Your task to perform on an android device: turn off location history Image 0: 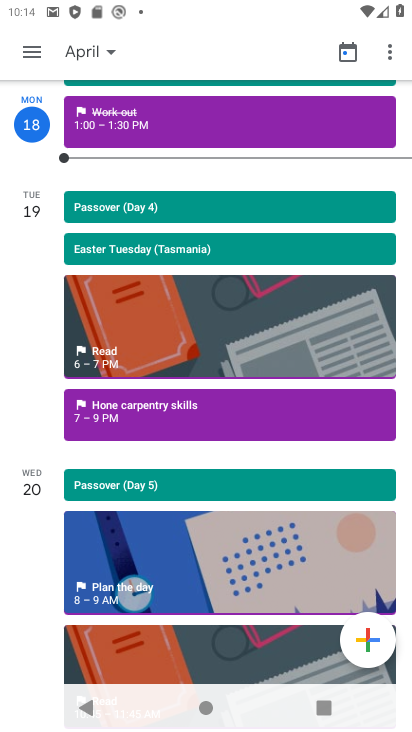
Step 0: press back button
Your task to perform on an android device: turn off location history Image 1: 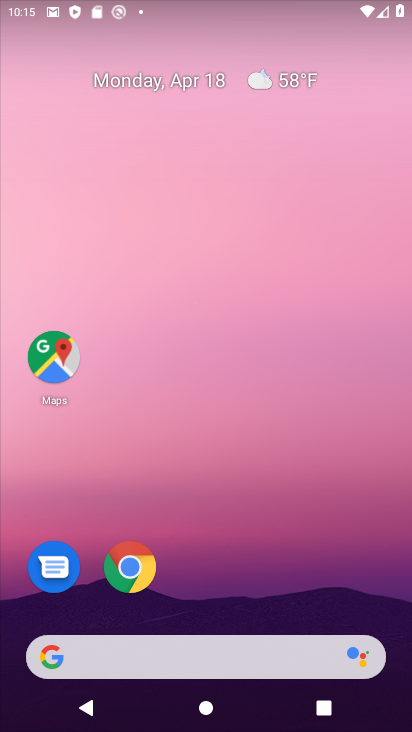
Step 1: drag from (205, 723) to (206, 144)
Your task to perform on an android device: turn off location history Image 2: 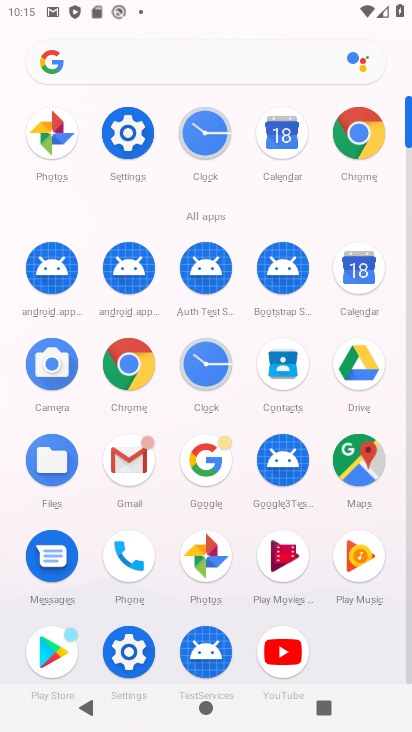
Step 2: click (123, 129)
Your task to perform on an android device: turn off location history Image 3: 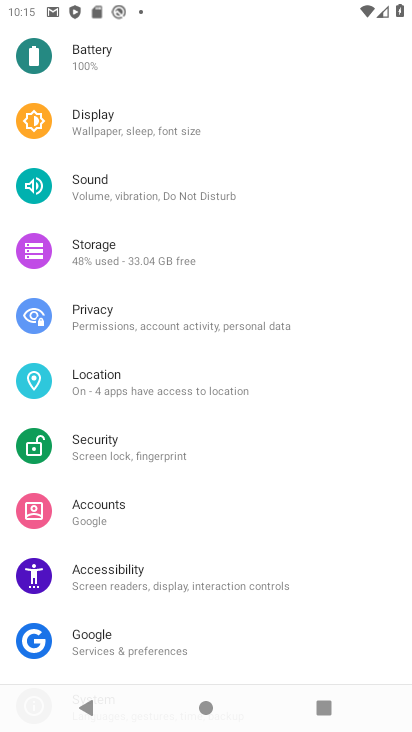
Step 3: click (105, 381)
Your task to perform on an android device: turn off location history Image 4: 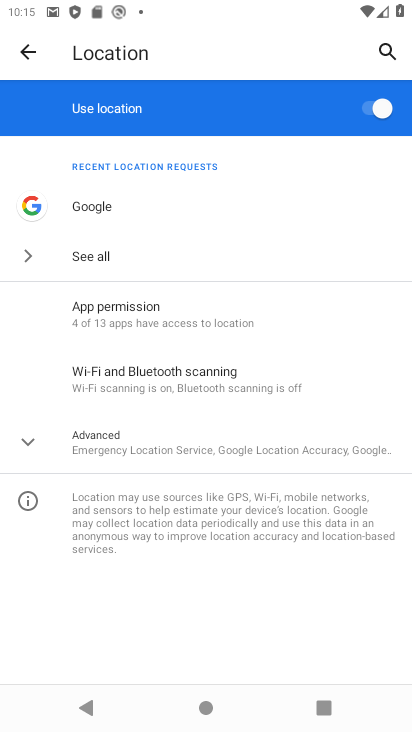
Step 4: click (130, 439)
Your task to perform on an android device: turn off location history Image 5: 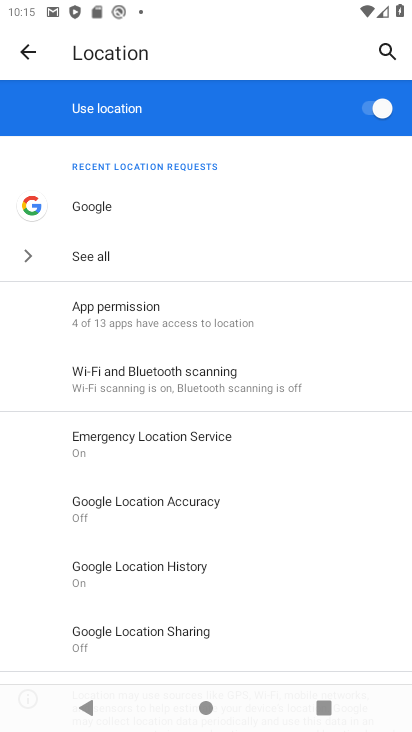
Step 5: drag from (237, 614) to (223, 376)
Your task to perform on an android device: turn off location history Image 6: 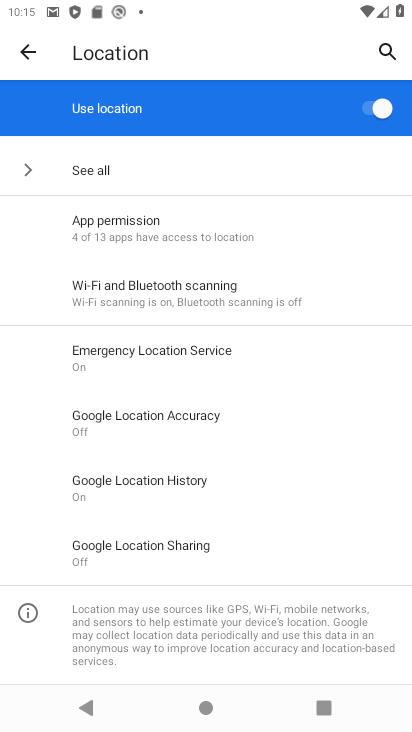
Step 6: click (135, 478)
Your task to perform on an android device: turn off location history Image 7: 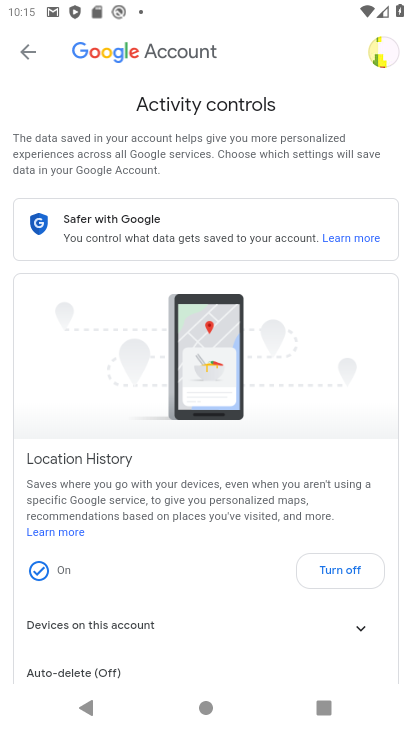
Step 7: click (355, 568)
Your task to perform on an android device: turn off location history Image 8: 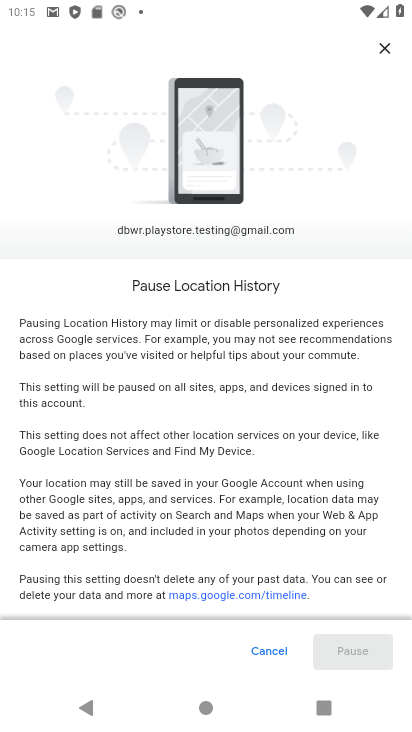
Step 8: drag from (238, 553) to (249, 129)
Your task to perform on an android device: turn off location history Image 9: 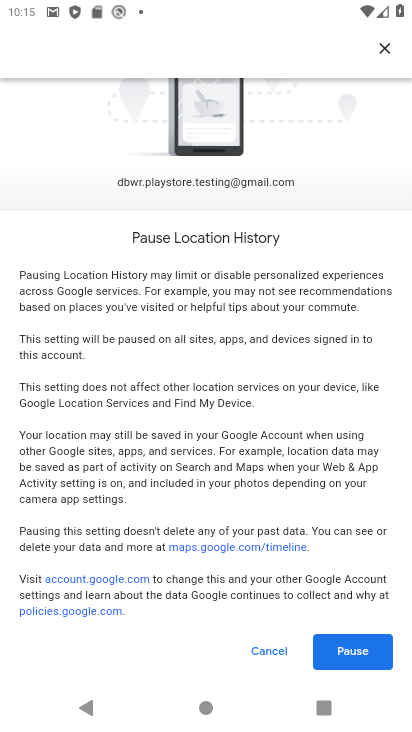
Step 9: click (351, 653)
Your task to perform on an android device: turn off location history Image 10: 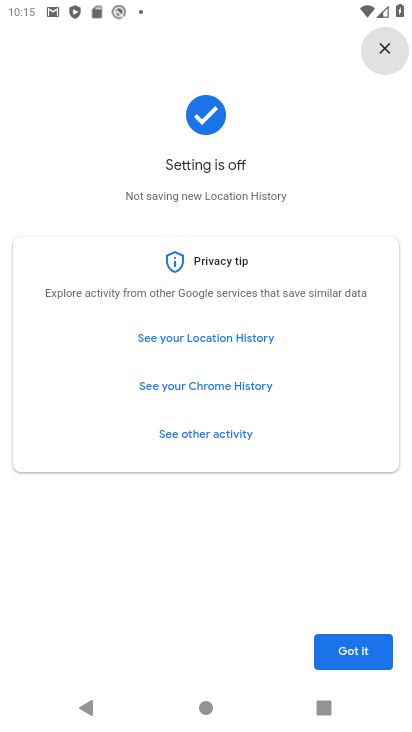
Step 10: task complete